Your task to perform on an android device: Open Google Chrome Image 0: 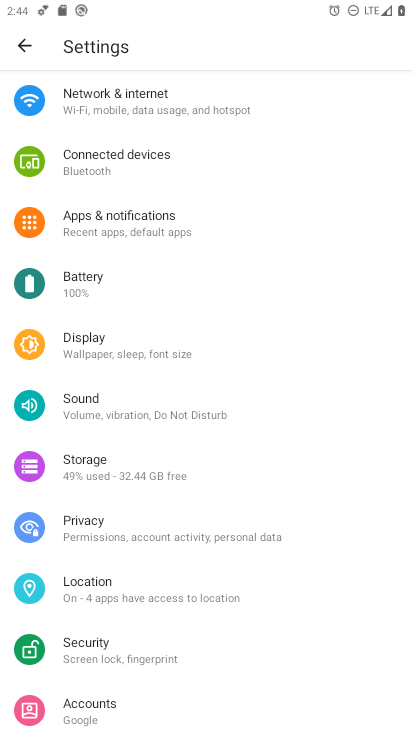
Step 0: press home button
Your task to perform on an android device: Open Google Chrome Image 1: 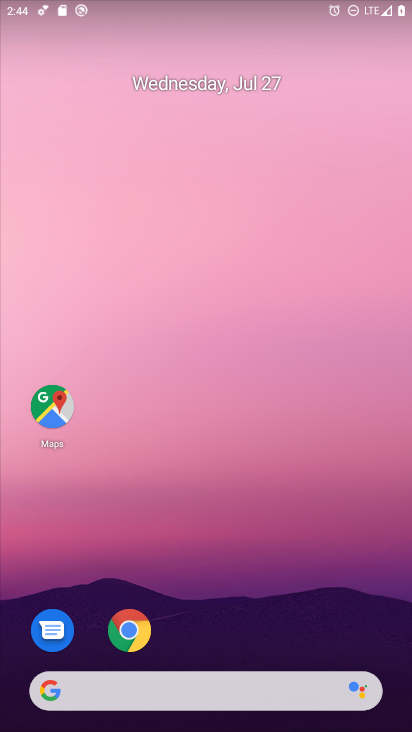
Step 1: click (128, 630)
Your task to perform on an android device: Open Google Chrome Image 2: 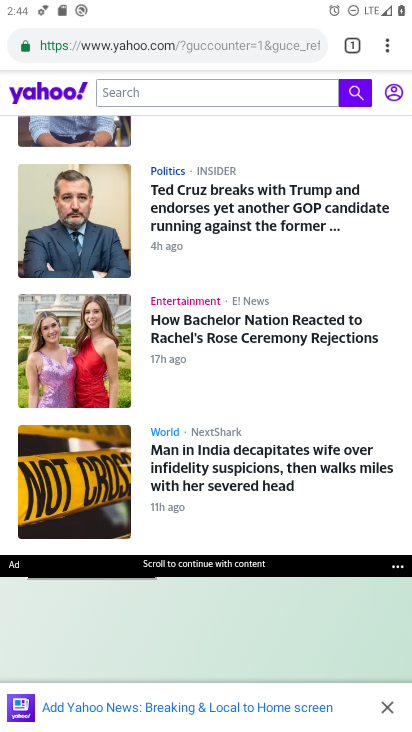
Step 2: task complete